Your task to perform on an android device: add a label to a message in the gmail app Image 0: 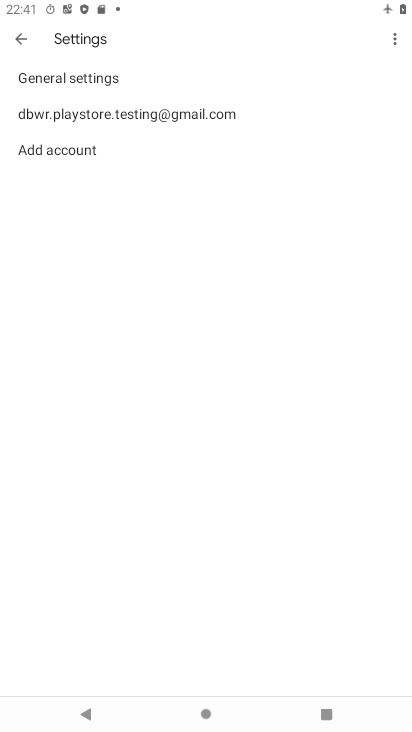
Step 0: press home button
Your task to perform on an android device: add a label to a message in the gmail app Image 1: 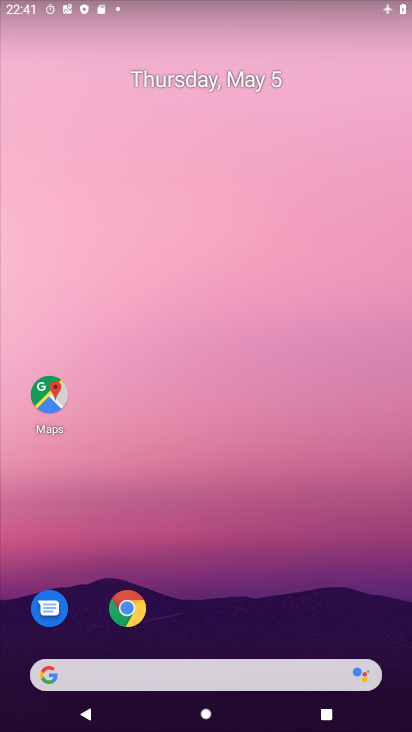
Step 1: drag from (255, 644) to (290, 198)
Your task to perform on an android device: add a label to a message in the gmail app Image 2: 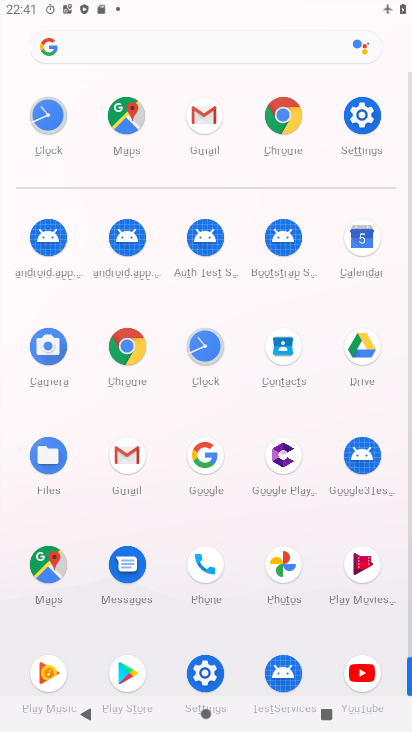
Step 2: click (211, 113)
Your task to perform on an android device: add a label to a message in the gmail app Image 3: 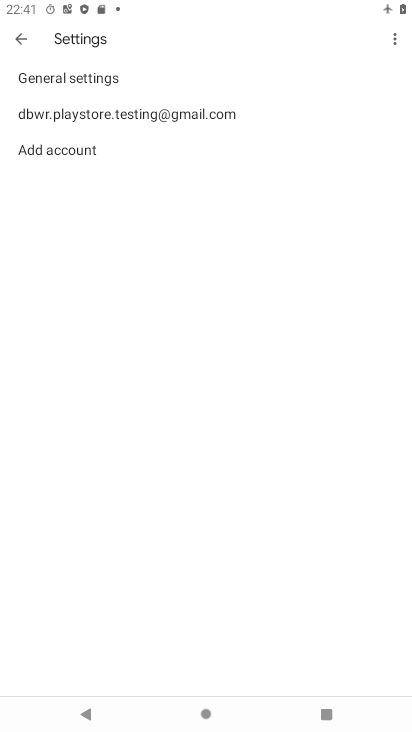
Step 3: press back button
Your task to perform on an android device: add a label to a message in the gmail app Image 4: 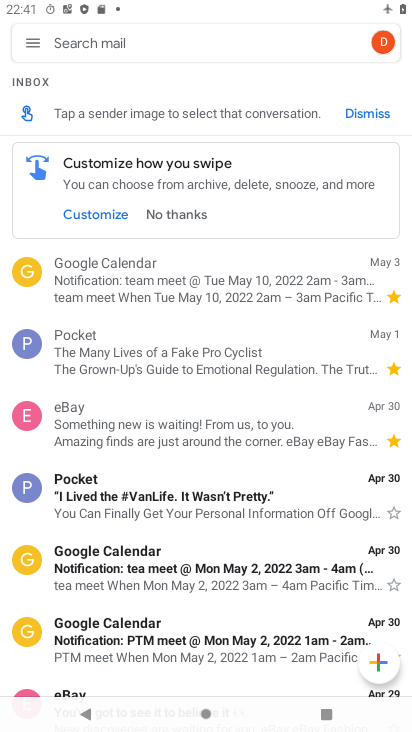
Step 4: click (352, 564)
Your task to perform on an android device: add a label to a message in the gmail app Image 5: 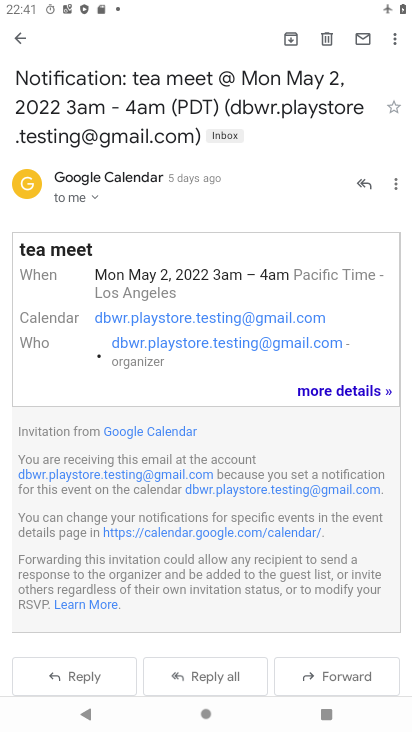
Step 5: click (394, 40)
Your task to perform on an android device: add a label to a message in the gmail app Image 6: 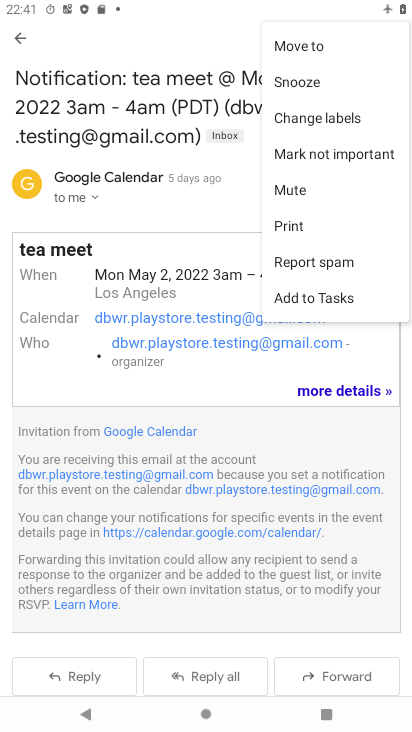
Step 6: click (333, 114)
Your task to perform on an android device: add a label to a message in the gmail app Image 7: 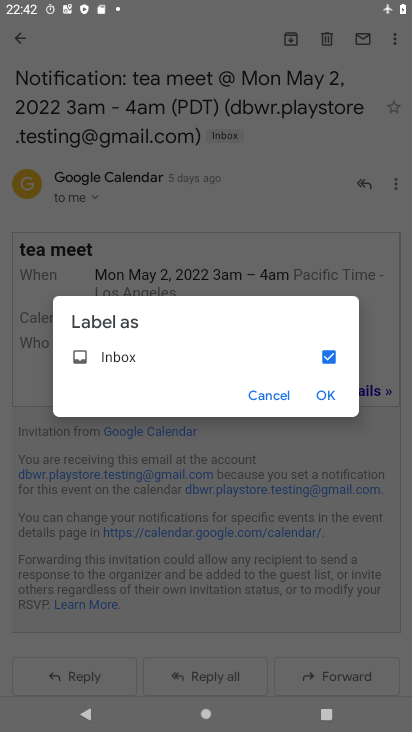
Step 7: click (323, 394)
Your task to perform on an android device: add a label to a message in the gmail app Image 8: 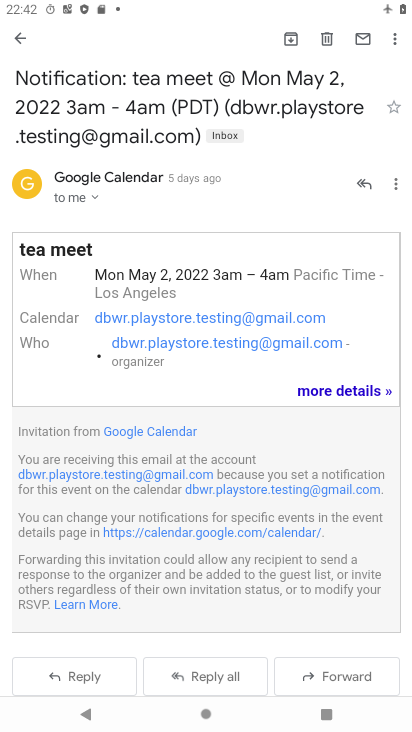
Step 8: task complete